Your task to perform on an android device: Find coffee shops on Maps Image 0: 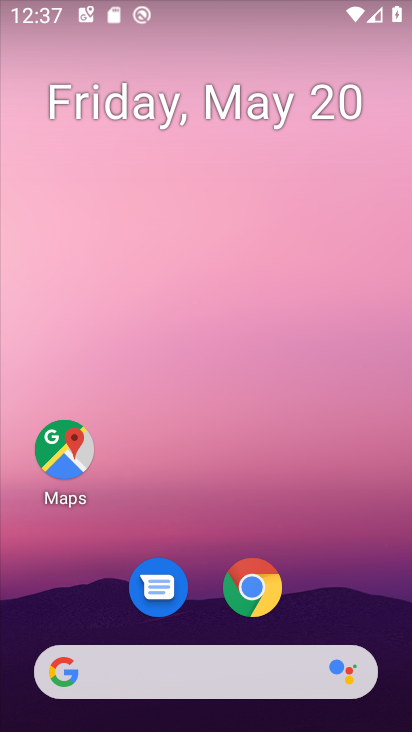
Step 0: drag from (377, 592) to (364, 190)
Your task to perform on an android device: Find coffee shops on Maps Image 1: 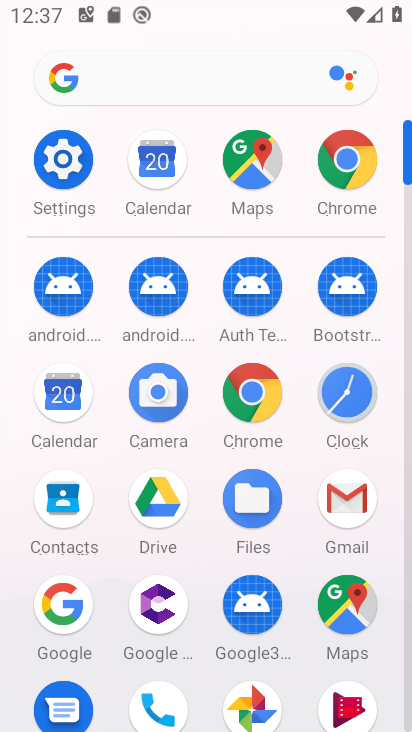
Step 1: click (338, 624)
Your task to perform on an android device: Find coffee shops on Maps Image 2: 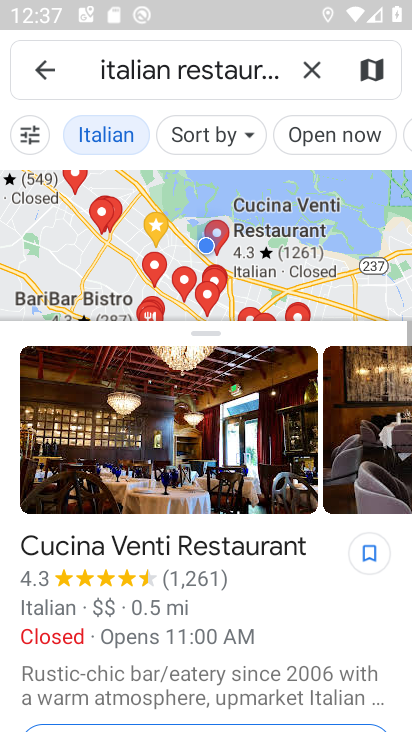
Step 2: click (316, 78)
Your task to perform on an android device: Find coffee shops on Maps Image 3: 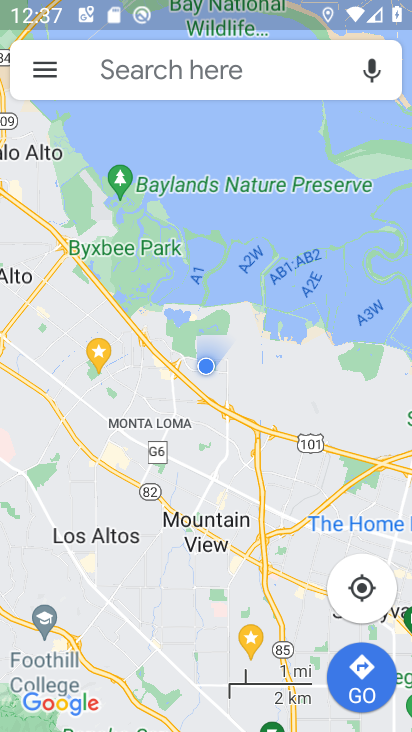
Step 3: click (265, 72)
Your task to perform on an android device: Find coffee shops on Maps Image 4: 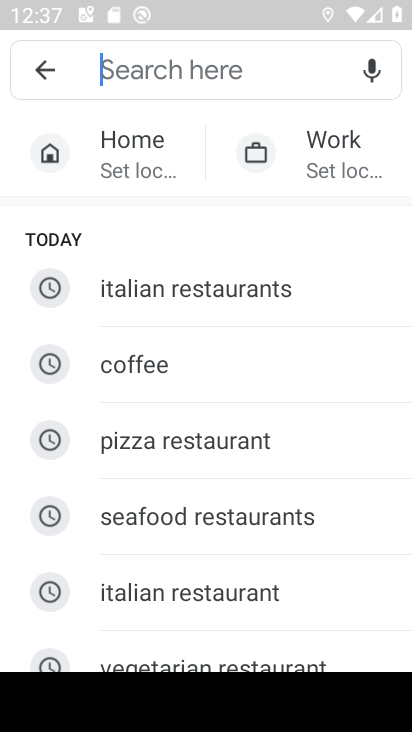
Step 4: type "coffee"
Your task to perform on an android device: Find coffee shops on Maps Image 5: 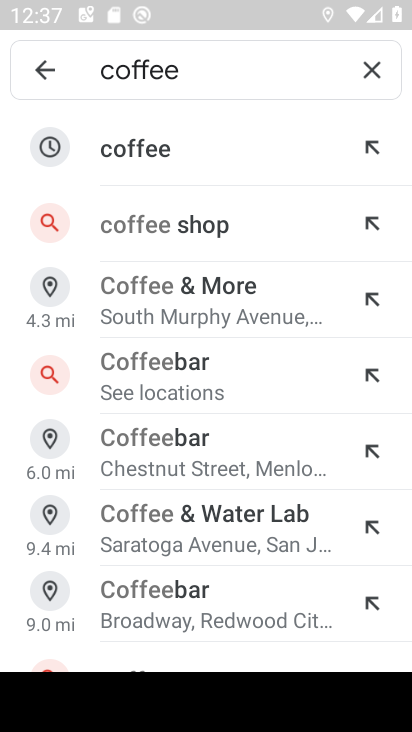
Step 5: click (251, 174)
Your task to perform on an android device: Find coffee shops on Maps Image 6: 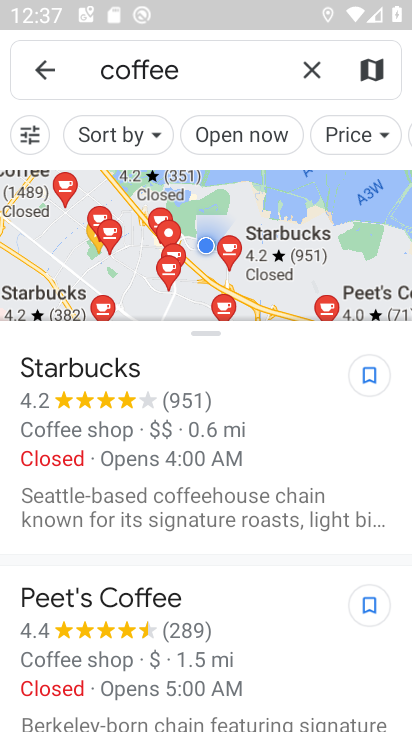
Step 6: task complete